Your task to perform on an android device: Open display settings Image 0: 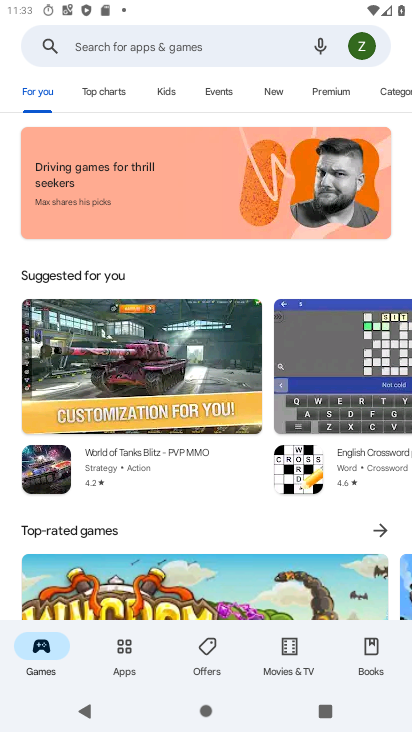
Step 0: press back button
Your task to perform on an android device: Open display settings Image 1: 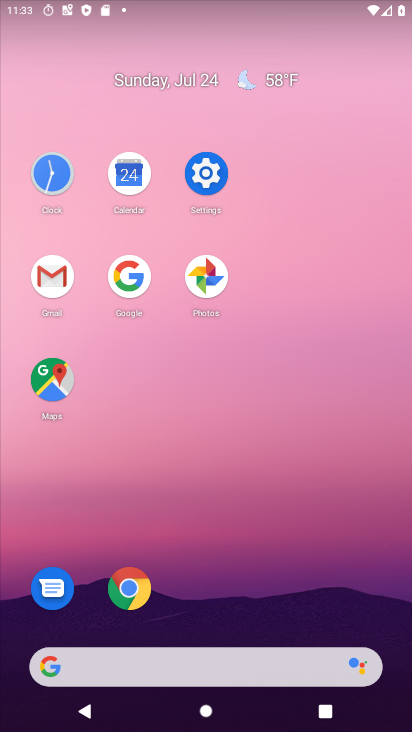
Step 1: click (213, 162)
Your task to perform on an android device: Open display settings Image 2: 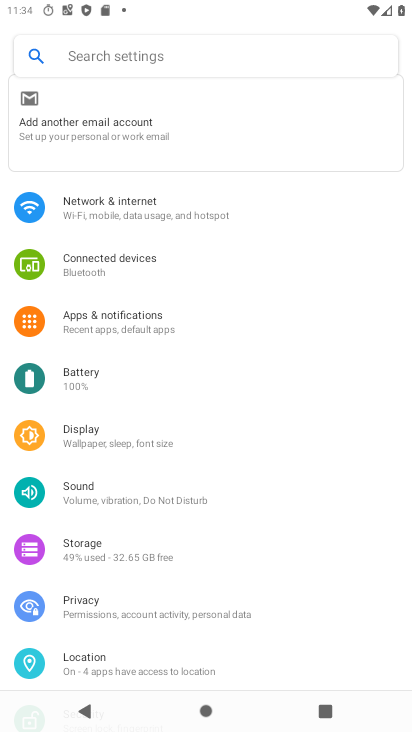
Step 2: click (134, 430)
Your task to perform on an android device: Open display settings Image 3: 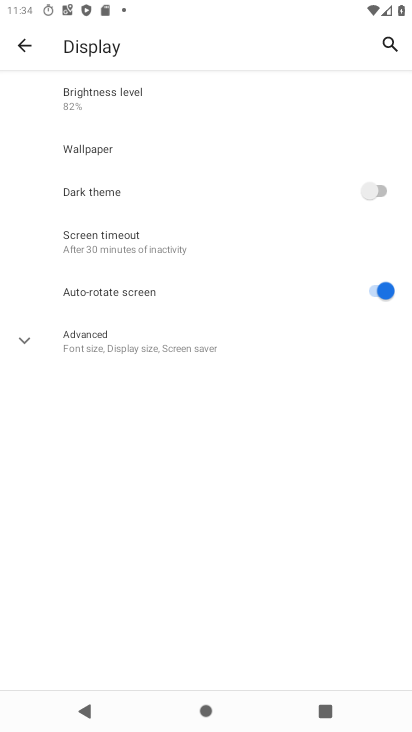
Step 3: task complete